Your task to perform on an android device: Go to internet settings Image 0: 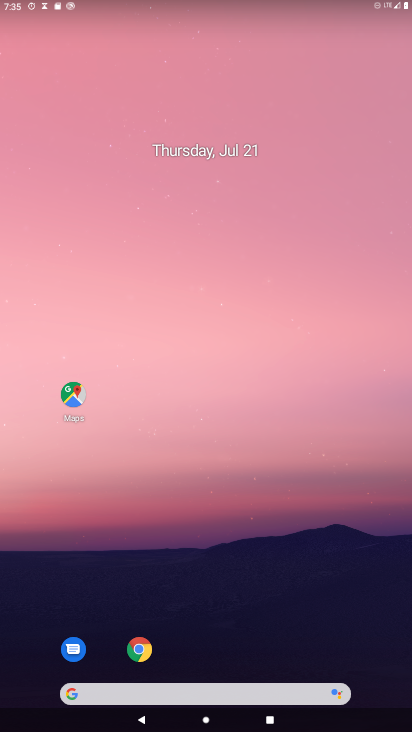
Step 0: drag from (324, 617) to (169, 55)
Your task to perform on an android device: Go to internet settings Image 1: 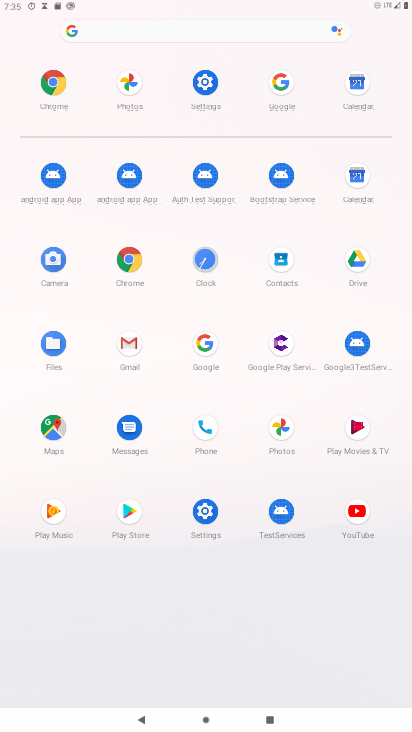
Step 1: click (203, 522)
Your task to perform on an android device: Go to internet settings Image 2: 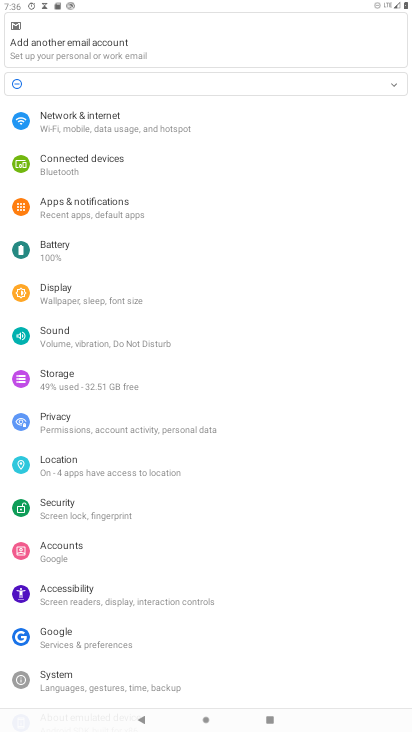
Step 2: click (114, 131)
Your task to perform on an android device: Go to internet settings Image 3: 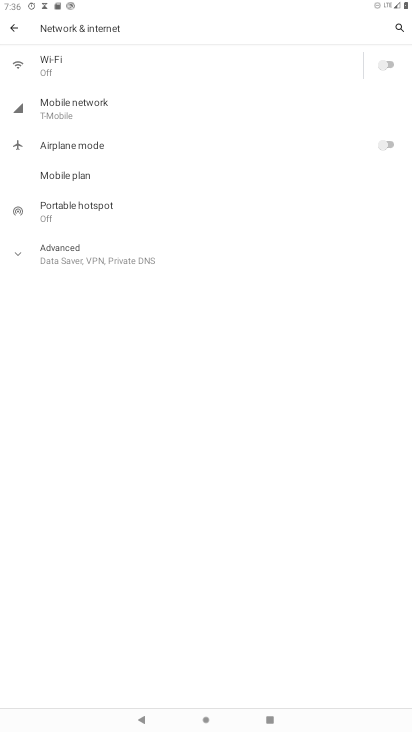
Step 3: task complete